Your task to perform on an android device: Open Chrome and go to the settings page Image 0: 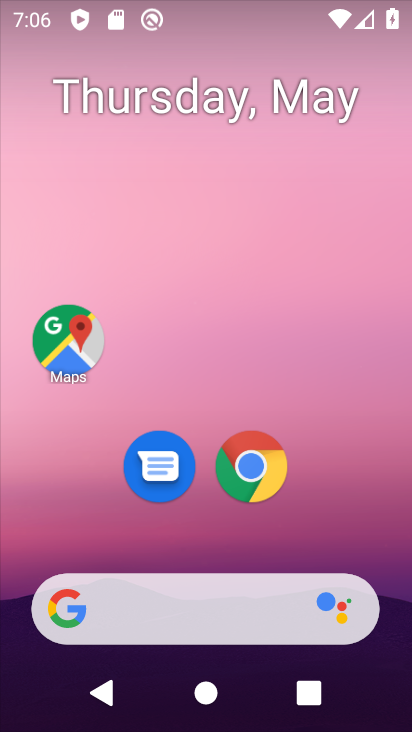
Step 0: click (238, 473)
Your task to perform on an android device: Open Chrome and go to the settings page Image 1: 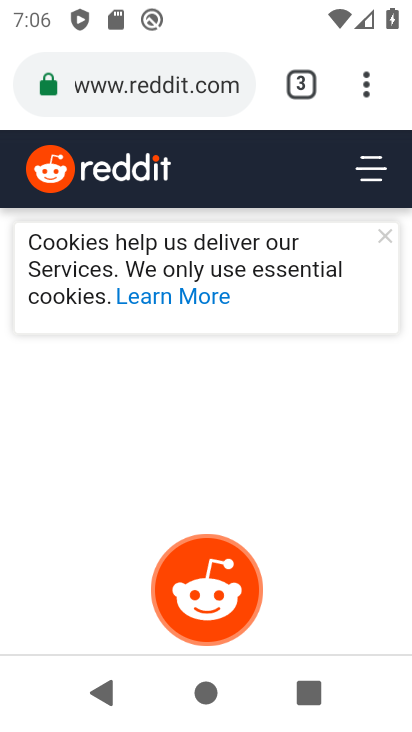
Step 1: press home button
Your task to perform on an android device: Open Chrome and go to the settings page Image 2: 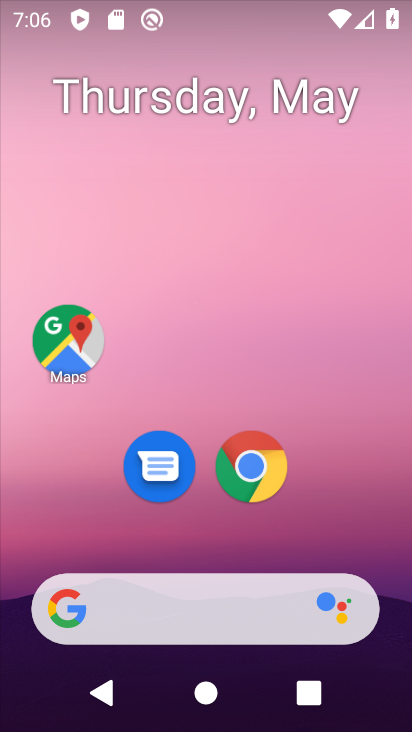
Step 2: click (246, 465)
Your task to perform on an android device: Open Chrome and go to the settings page Image 3: 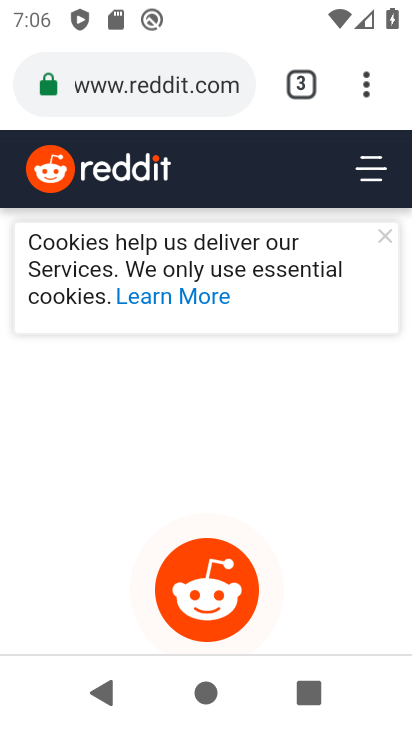
Step 3: click (365, 79)
Your task to perform on an android device: Open Chrome and go to the settings page Image 4: 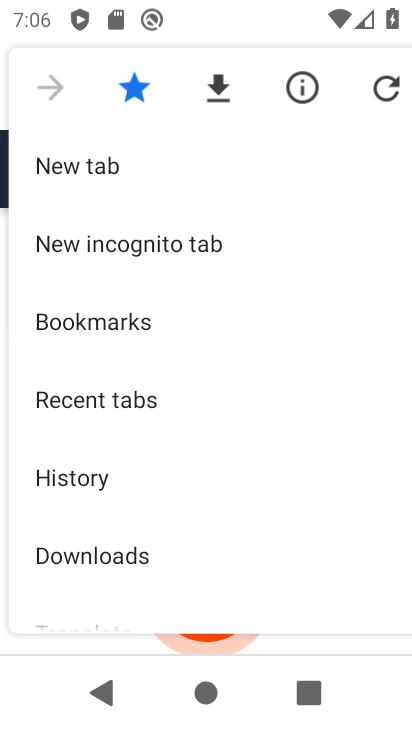
Step 4: drag from (225, 523) to (204, 273)
Your task to perform on an android device: Open Chrome and go to the settings page Image 5: 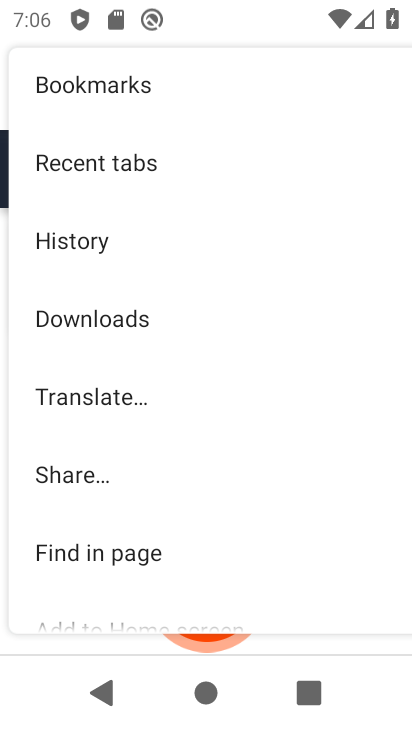
Step 5: drag from (228, 496) to (213, 183)
Your task to perform on an android device: Open Chrome and go to the settings page Image 6: 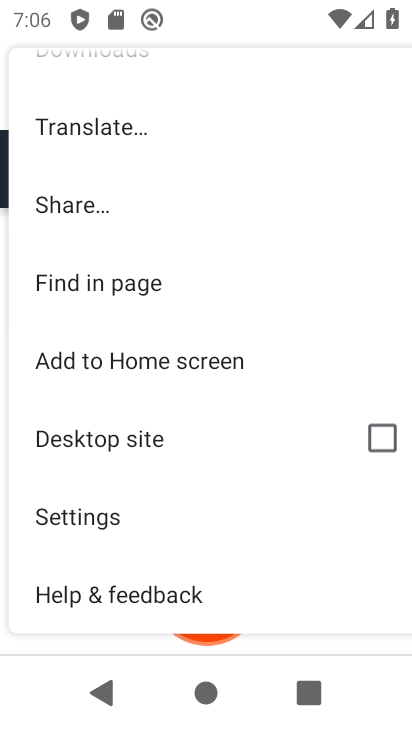
Step 6: click (96, 515)
Your task to perform on an android device: Open Chrome and go to the settings page Image 7: 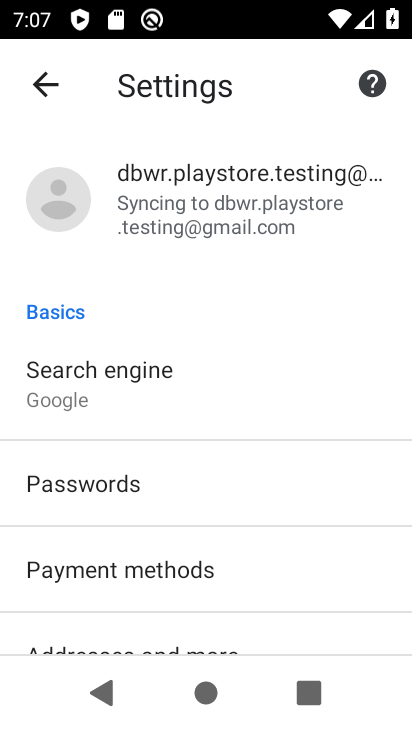
Step 7: task complete